Your task to perform on an android device: open app "Nova Launcher" Image 0: 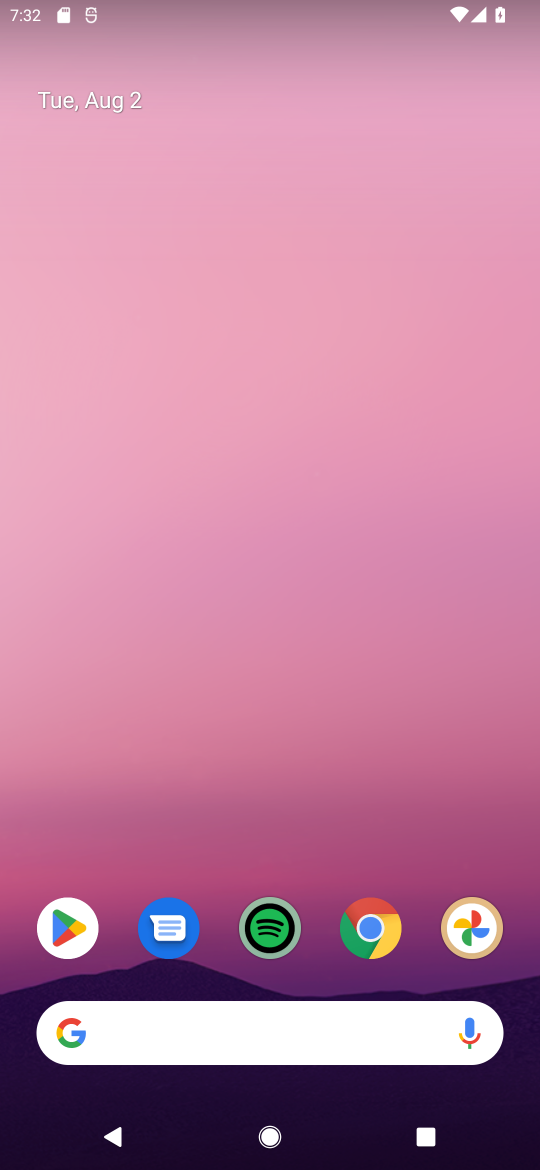
Step 0: click (46, 937)
Your task to perform on an android device: open app "Nova Launcher" Image 1: 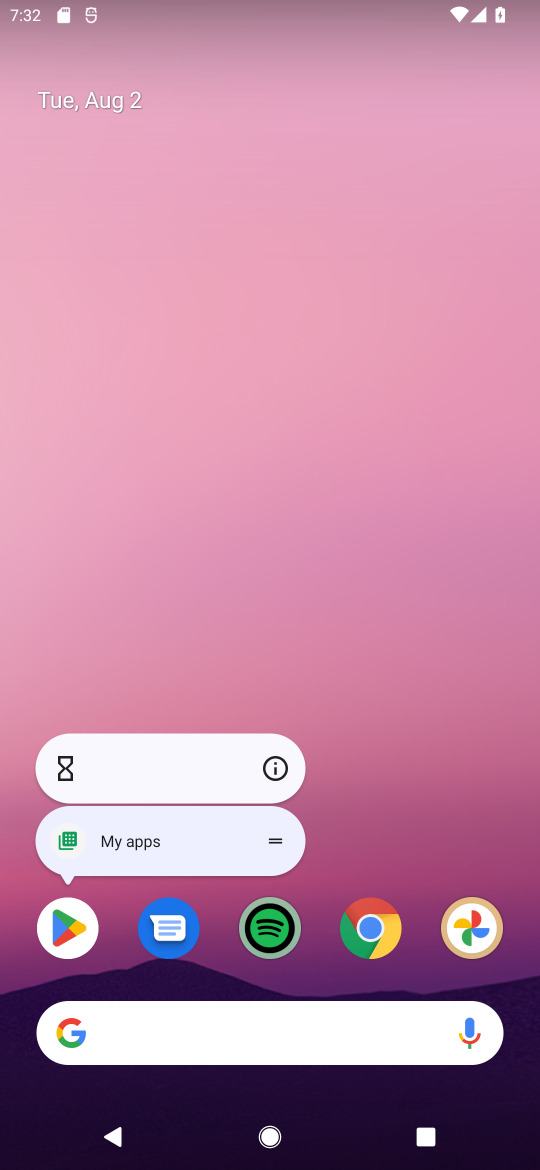
Step 1: click (46, 937)
Your task to perform on an android device: open app "Nova Launcher" Image 2: 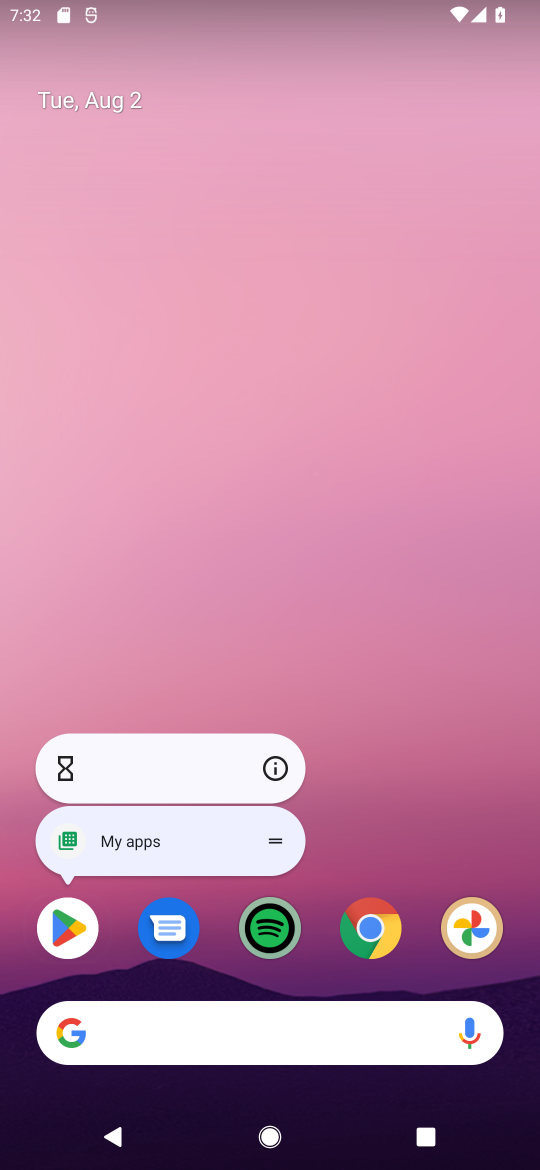
Step 2: click (64, 950)
Your task to perform on an android device: open app "Nova Launcher" Image 3: 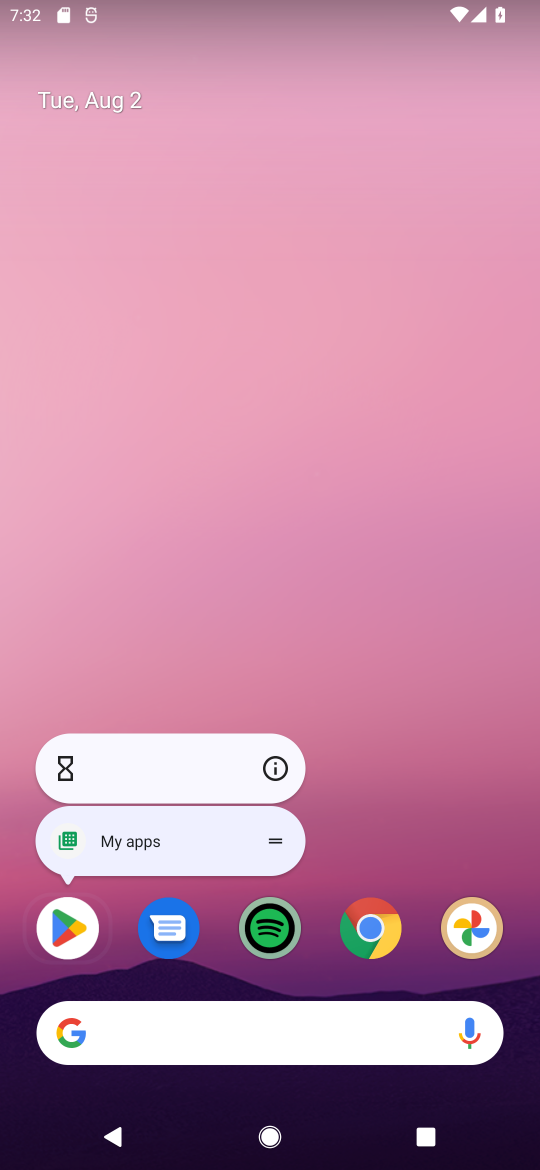
Step 3: click (64, 940)
Your task to perform on an android device: open app "Nova Launcher" Image 4: 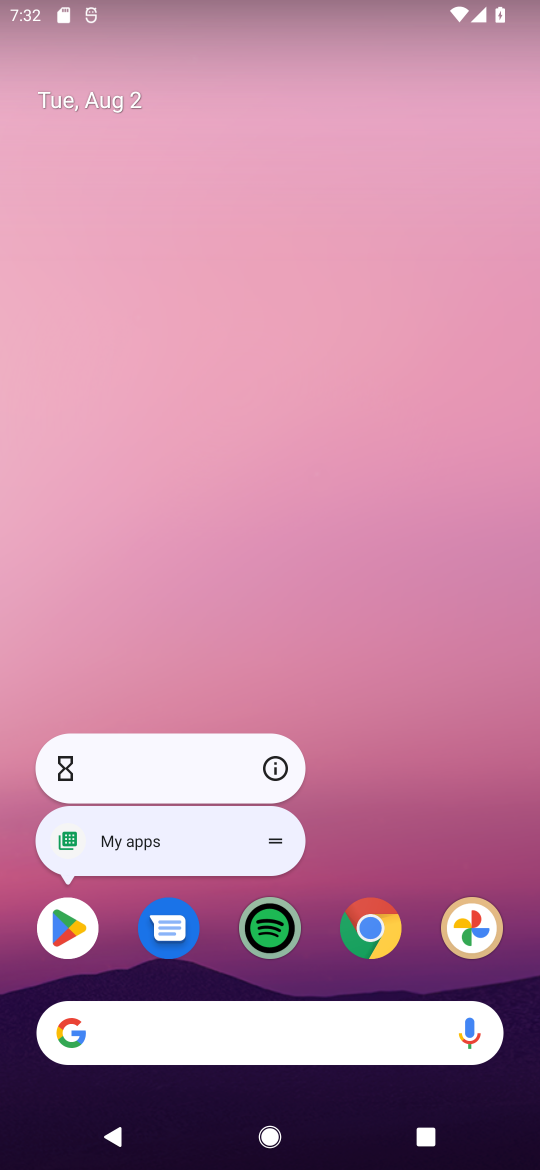
Step 4: click (64, 940)
Your task to perform on an android device: open app "Nova Launcher" Image 5: 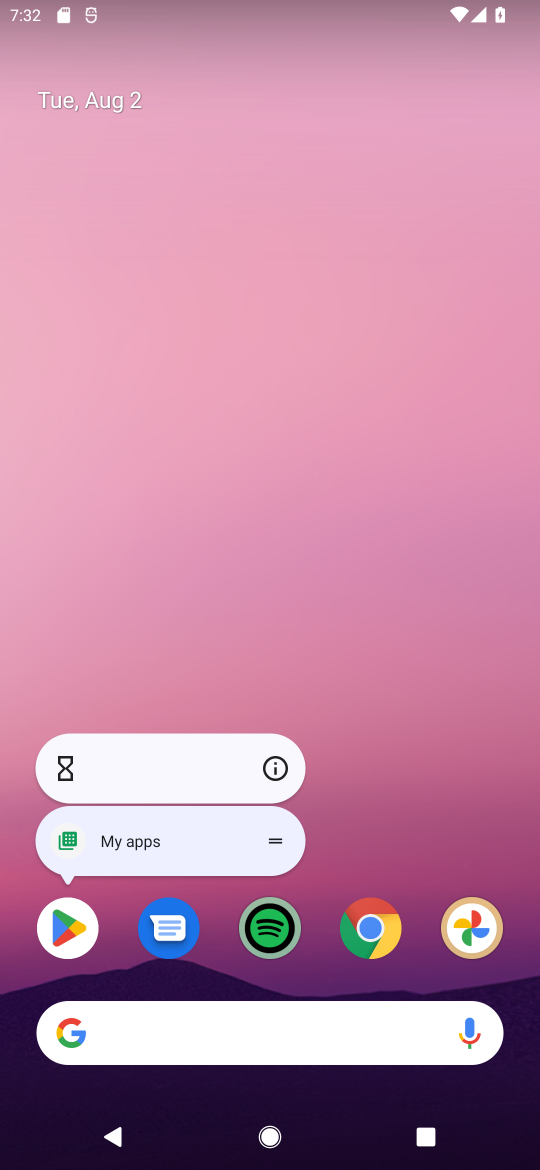
Step 5: click (67, 947)
Your task to perform on an android device: open app "Nova Launcher" Image 6: 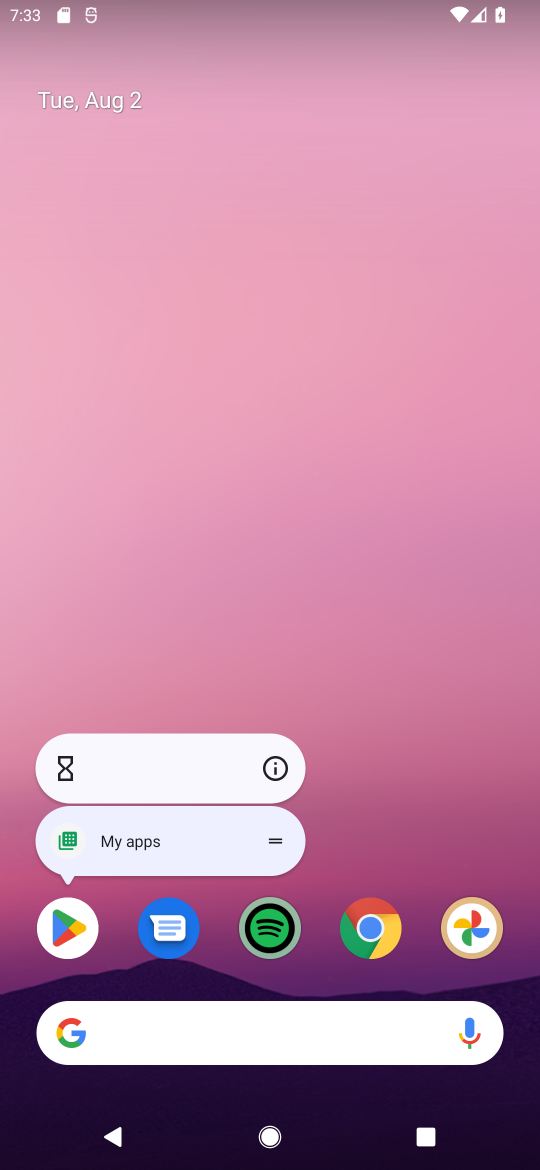
Step 6: click (67, 947)
Your task to perform on an android device: open app "Nova Launcher" Image 7: 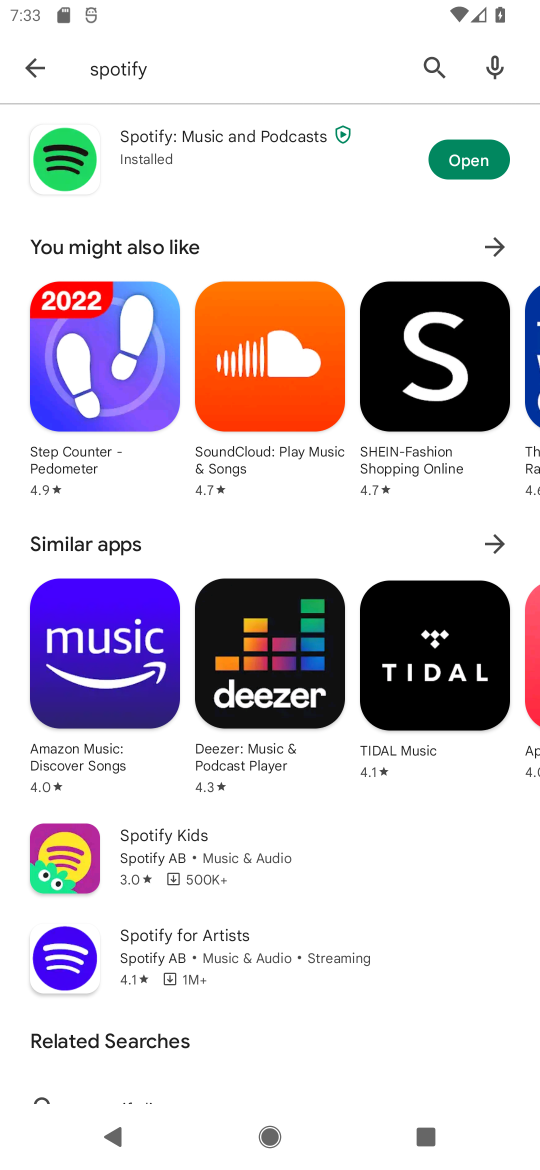
Step 7: click (443, 63)
Your task to perform on an android device: open app "Nova Launcher" Image 8: 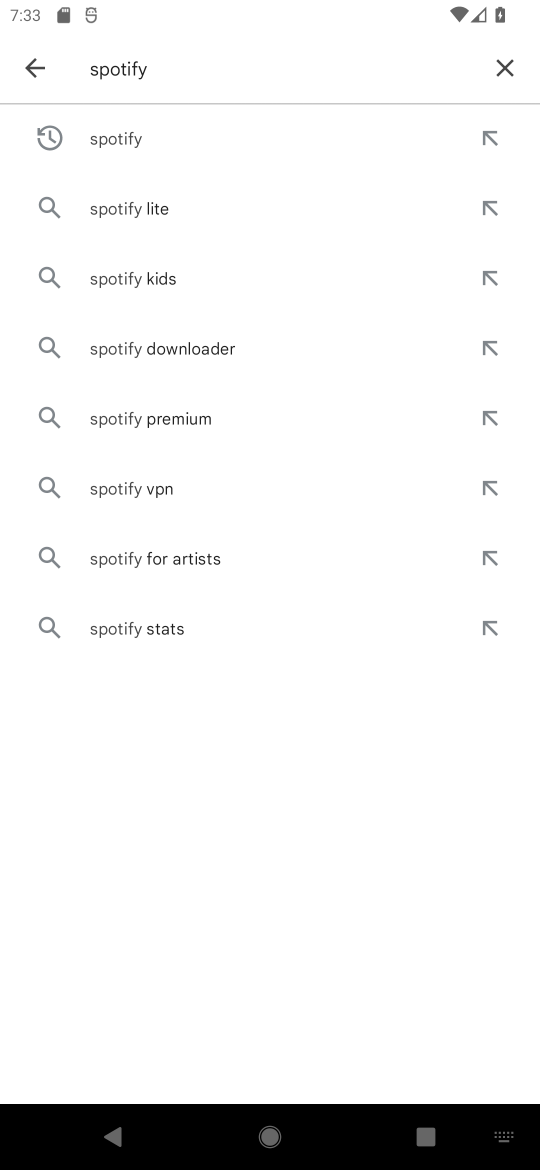
Step 8: click (504, 63)
Your task to perform on an android device: open app "Nova Launcher" Image 9: 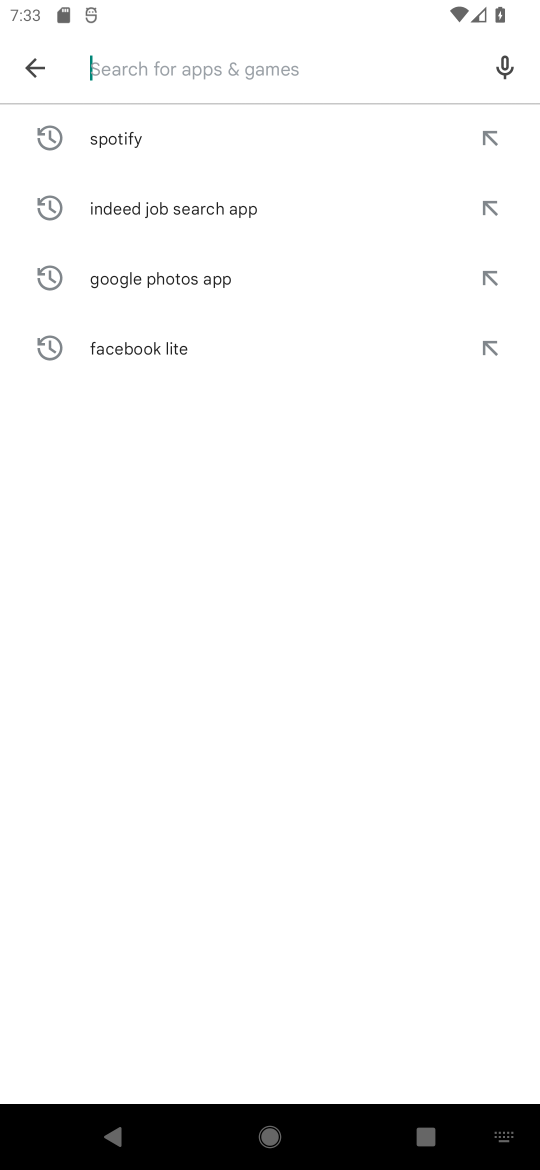
Step 9: type "nova launcher"
Your task to perform on an android device: open app "Nova Launcher" Image 10: 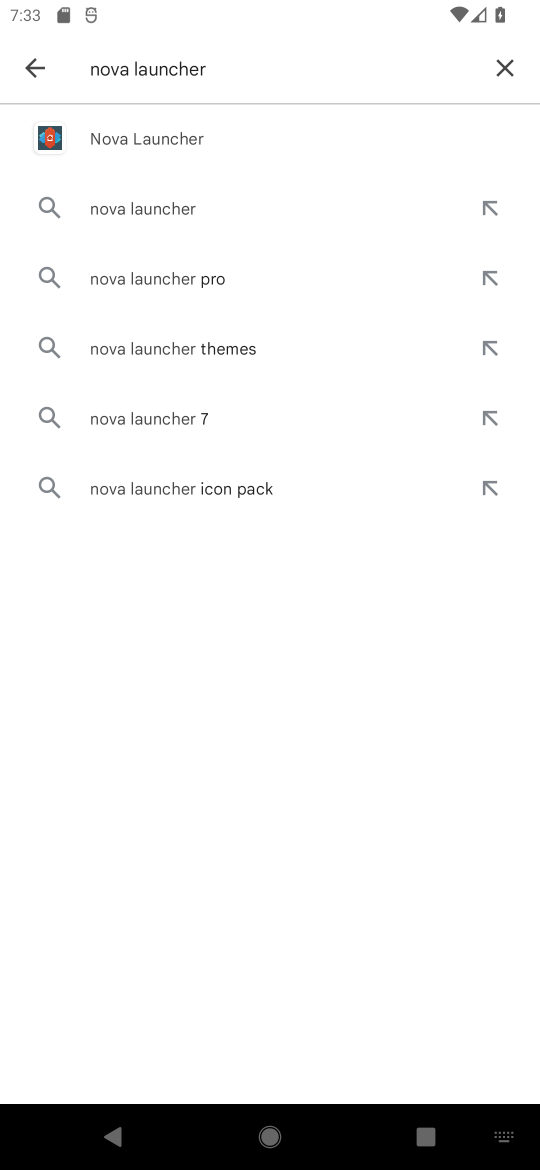
Step 10: click (195, 130)
Your task to perform on an android device: open app "Nova Launcher" Image 11: 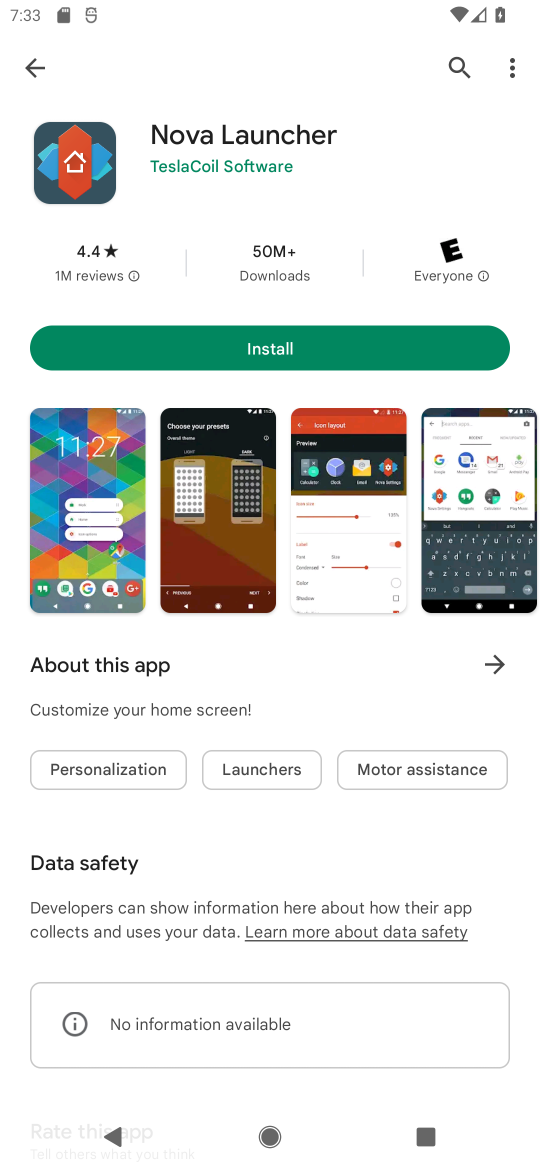
Step 11: task complete